Your task to perform on an android device: Open the calendar app, open the side menu, and click the "Day" option Image 0: 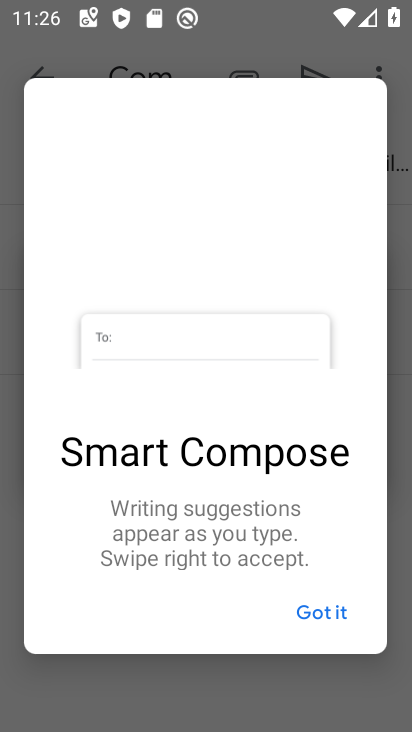
Step 0: press home button
Your task to perform on an android device: Open the calendar app, open the side menu, and click the "Day" option Image 1: 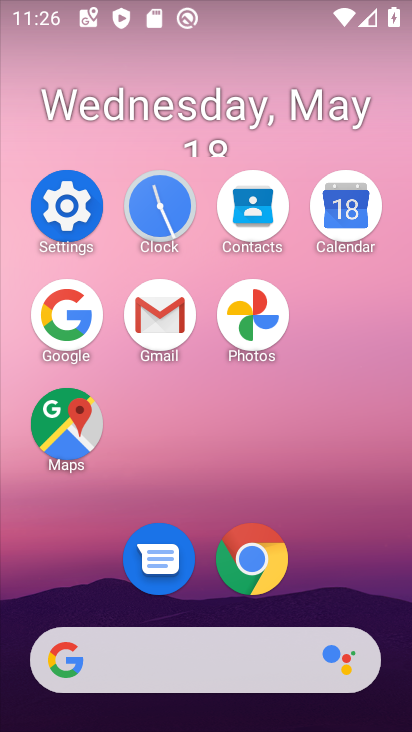
Step 1: click (342, 220)
Your task to perform on an android device: Open the calendar app, open the side menu, and click the "Day" option Image 2: 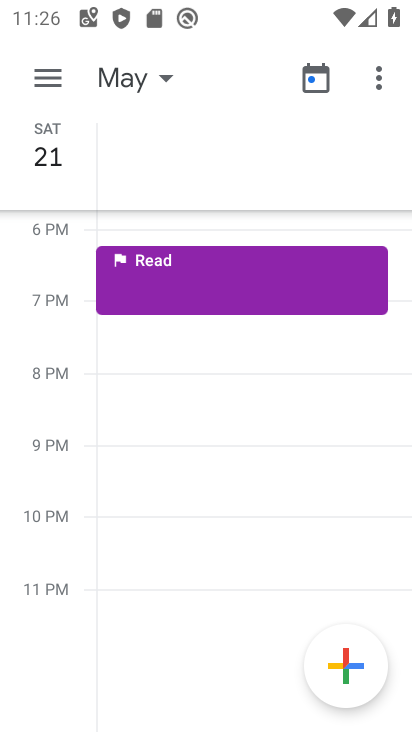
Step 2: click (57, 78)
Your task to perform on an android device: Open the calendar app, open the side menu, and click the "Day" option Image 3: 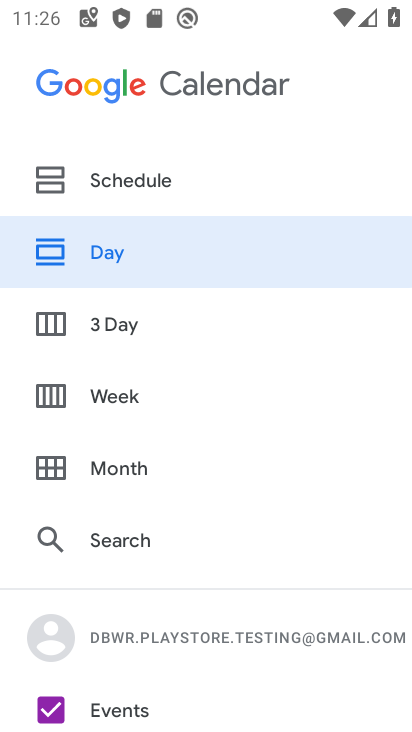
Step 3: click (142, 257)
Your task to perform on an android device: Open the calendar app, open the side menu, and click the "Day" option Image 4: 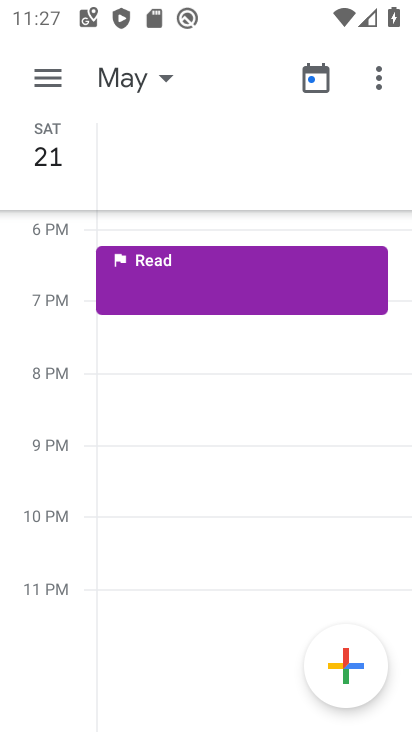
Step 4: task complete